Your task to perform on an android device: What's the weather? Image 0: 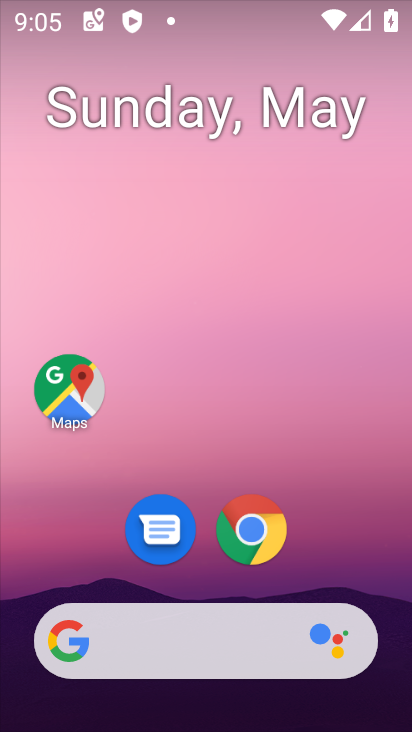
Step 0: drag from (338, 570) to (338, 7)
Your task to perform on an android device: What's the weather? Image 1: 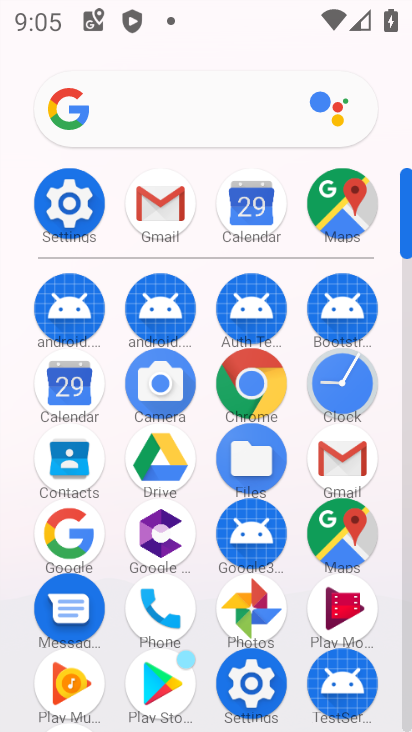
Step 1: click (191, 122)
Your task to perform on an android device: What's the weather? Image 2: 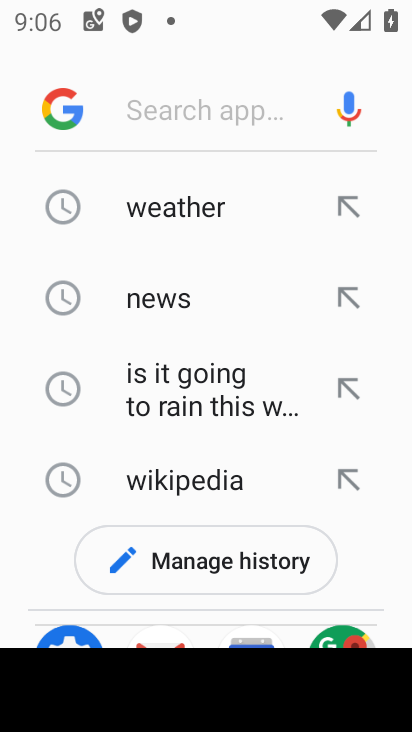
Step 2: click (186, 172)
Your task to perform on an android device: What's the weather? Image 3: 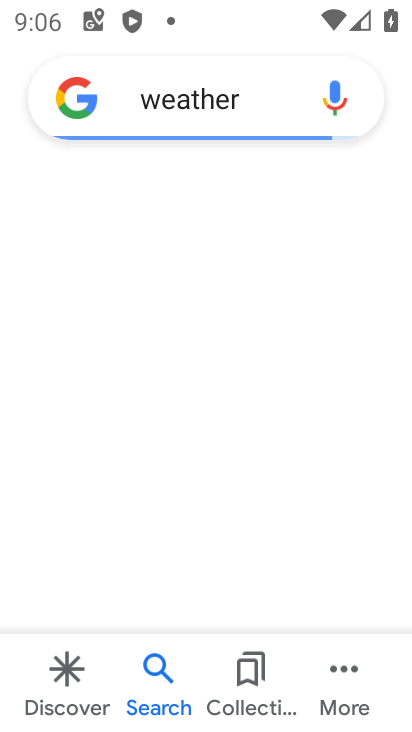
Step 3: task complete